Your task to perform on an android device: Open the map Image 0: 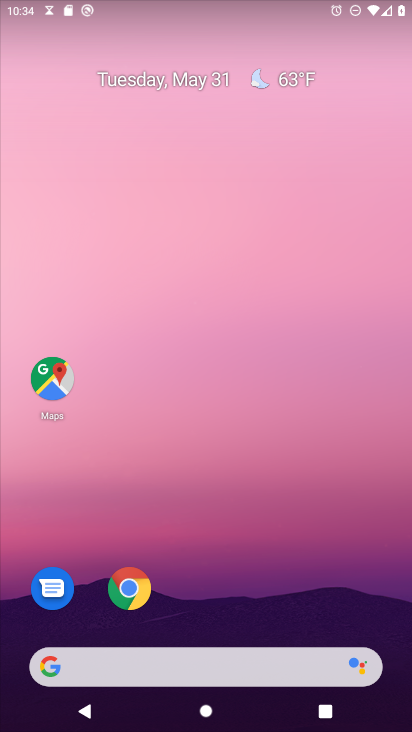
Step 0: click (52, 380)
Your task to perform on an android device: Open the map Image 1: 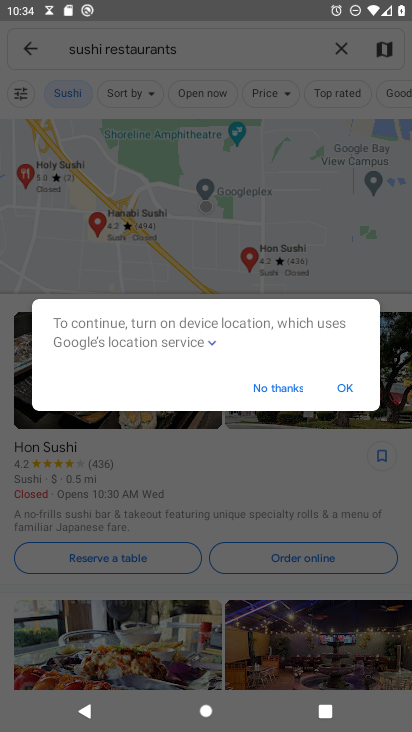
Step 1: click (280, 394)
Your task to perform on an android device: Open the map Image 2: 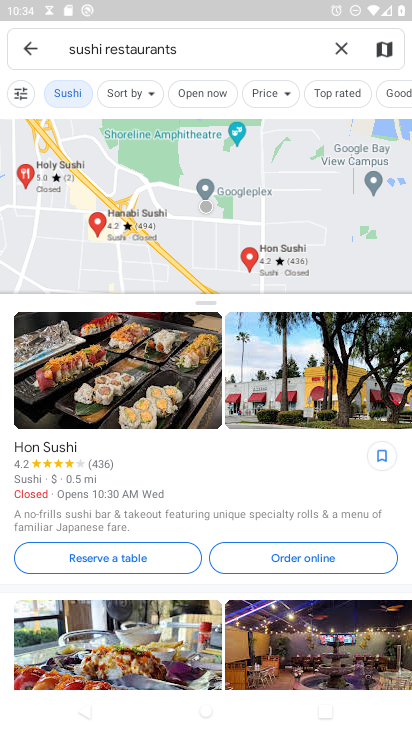
Step 2: click (343, 43)
Your task to perform on an android device: Open the map Image 3: 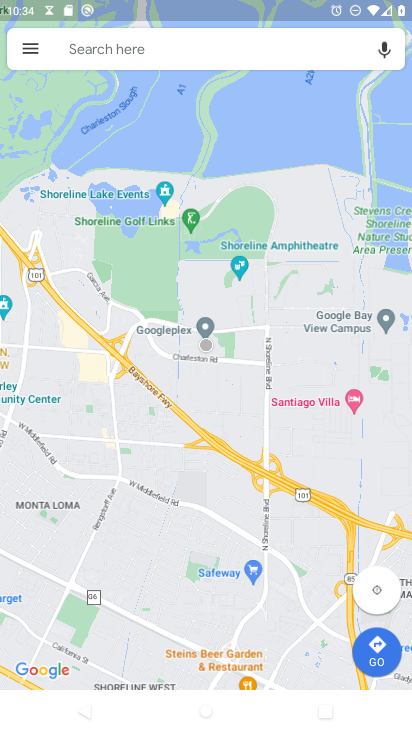
Step 3: task complete